Your task to perform on an android device: add a contact in the contacts app Image 0: 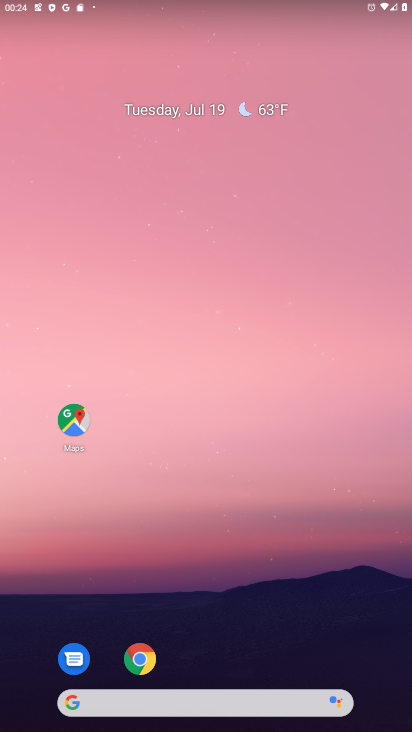
Step 0: press home button
Your task to perform on an android device: add a contact in the contacts app Image 1: 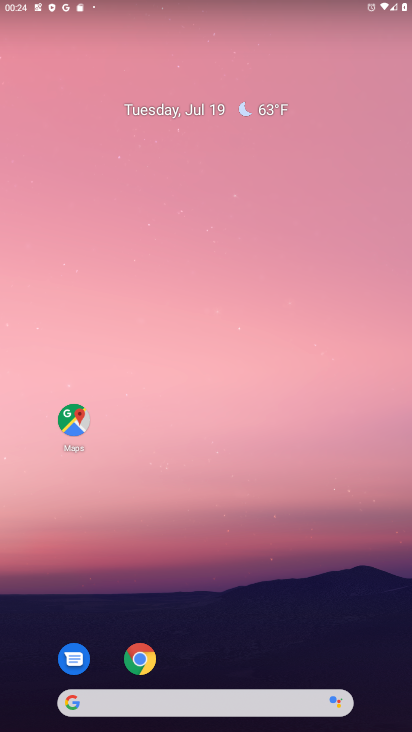
Step 1: drag from (325, 672) to (255, 122)
Your task to perform on an android device: add a contact in the contacts app Image 2: 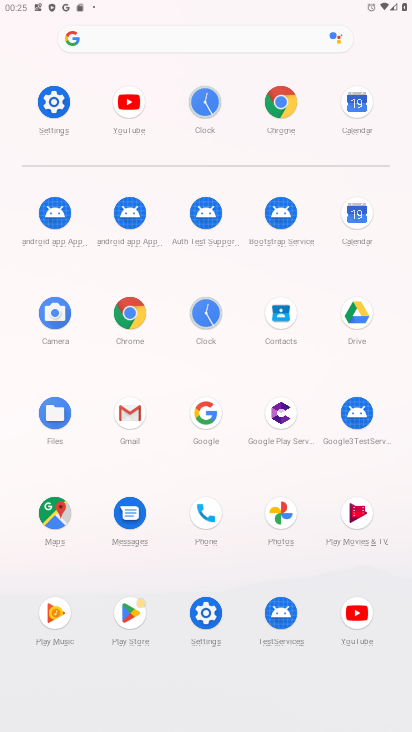
Step 2: click (289, 318)
Your task to perform on an android device: add a contact in the contacts app Image 3: 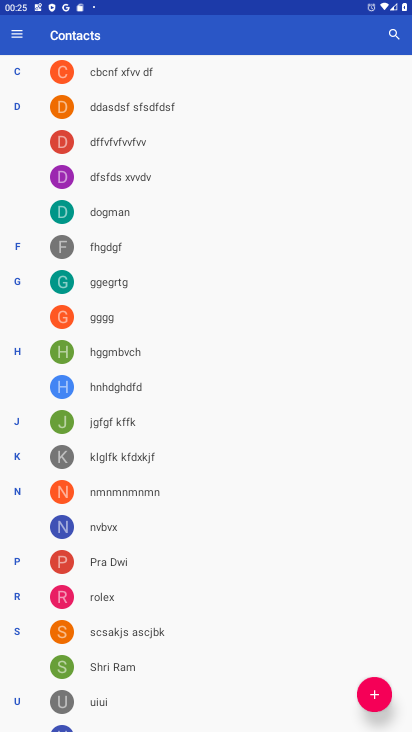
Step 3: click (378, 687)
Your task to perform on an android device: add a contact in the contacts app Image 4: 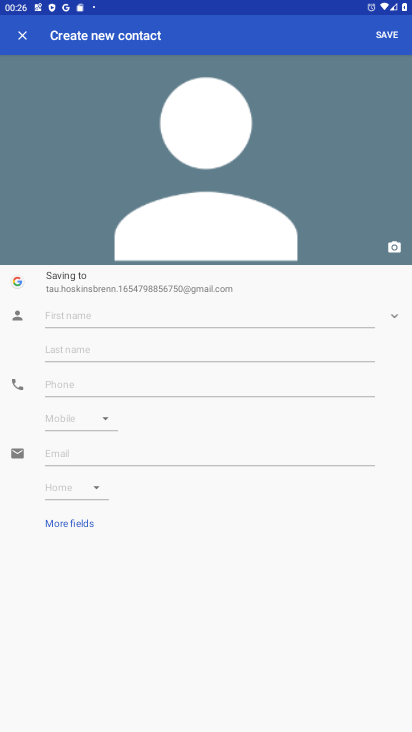
Step 4: type "whdhw"
Your task to perform on an android device: add a contact in the contacts app Image 5: 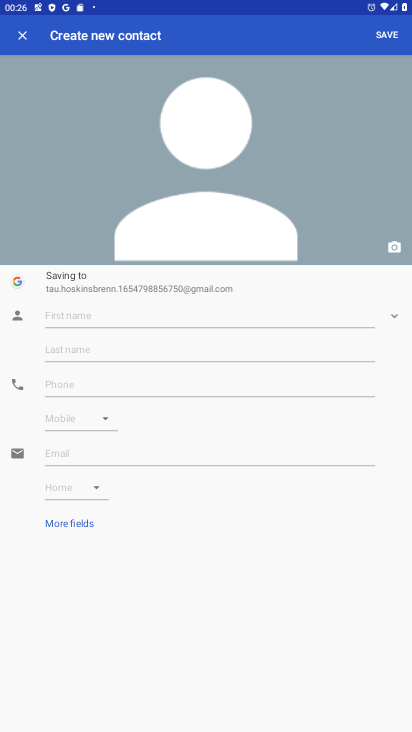
Step 5: click (74, 381)
Your task to perform on an android device: add a contact in the contacts app Image 6: 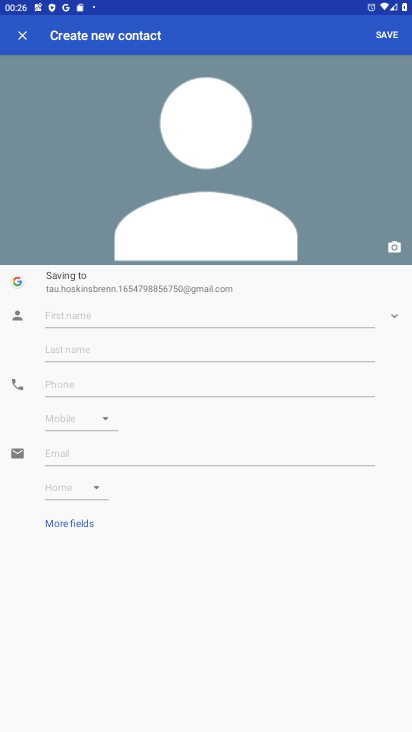
Step 6: click (74, 381)
Your task to perform on an android device: add a contact in the contacts app Image 7: 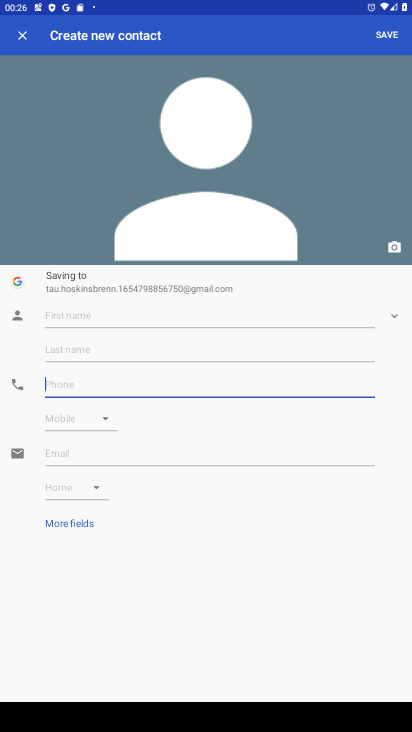
Step 7: click (92, 312)
Your task to perform on an android device: add a contact in the contacts app Image 8: 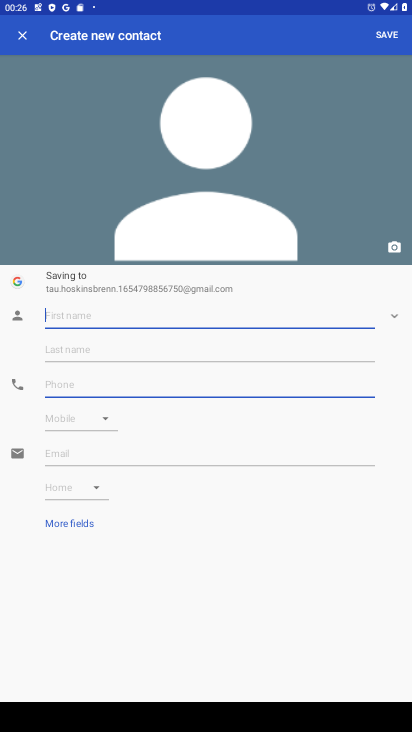
Step 8: click (92, 312)
Your task to perform on an android device: add a contact in the contacts app Image 9: 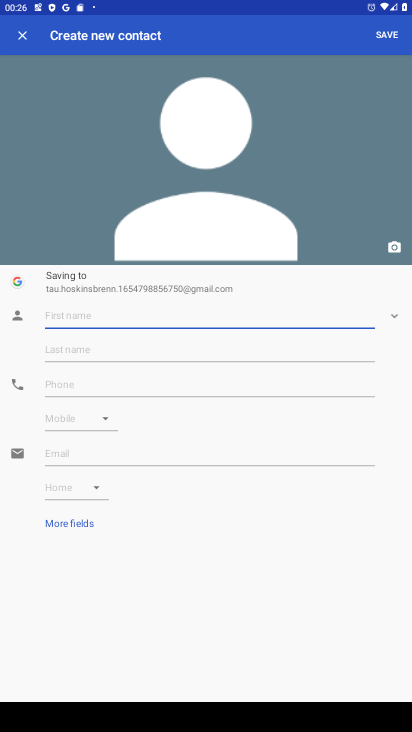
Step 9: type "jejfke"
Your task to perform on an android device: add a contact in the contacts app Image 10: 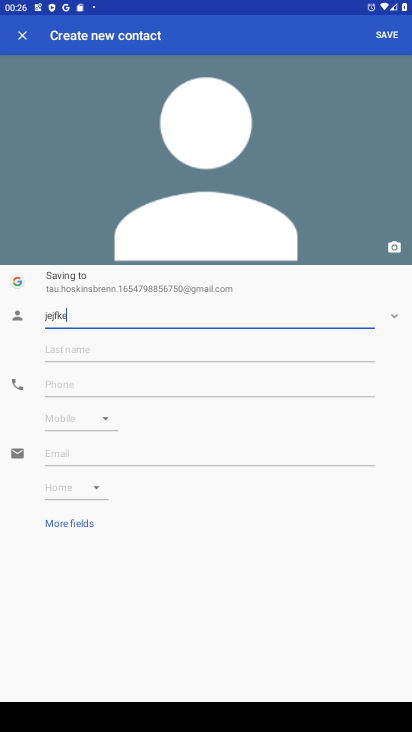
Step 10: click (254, 384)
Your task to perform on an android device: add a contact in the contacts app Image 11: 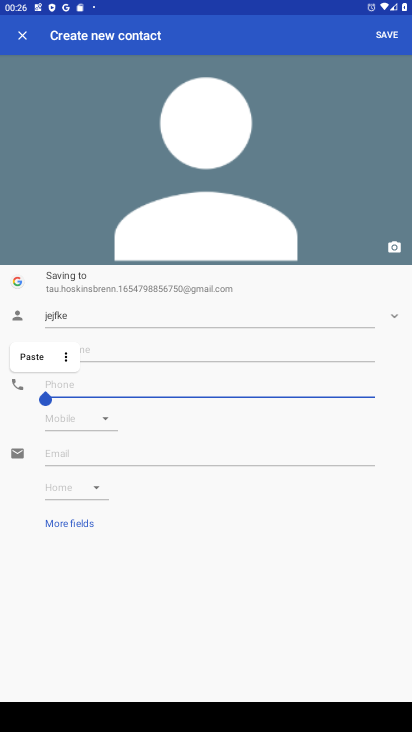
Step 11: type "e743488"
Your task to perform on an android device: add a contact in the contacts app Image 12: 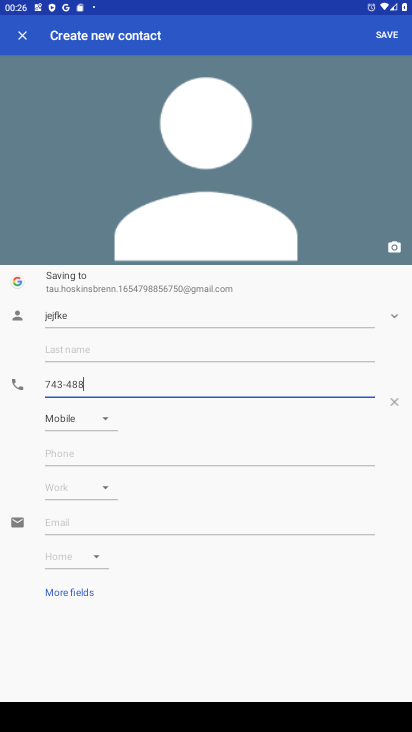
Step 12: click (383, 30)
Your task to perform on an android device: add a contact in the contacts app Image 13: 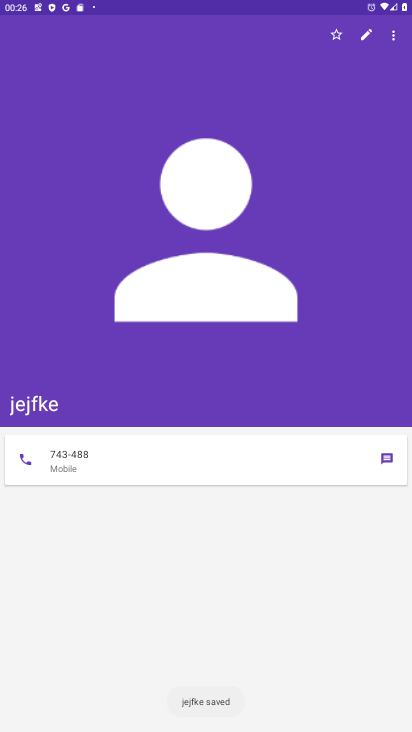
Step 13: task complete